Your task to perform on an android device: What's the weather today? Image 0: 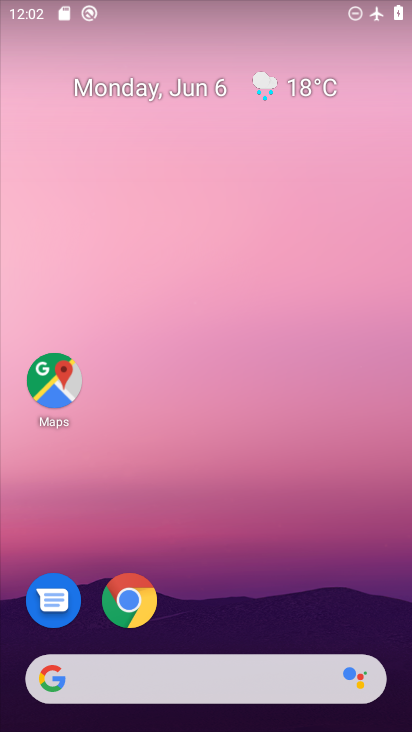
Step 0: drag from (202, 610) to (208, 305)
Your task to perform on an android device: What's the weather today? Image 1: 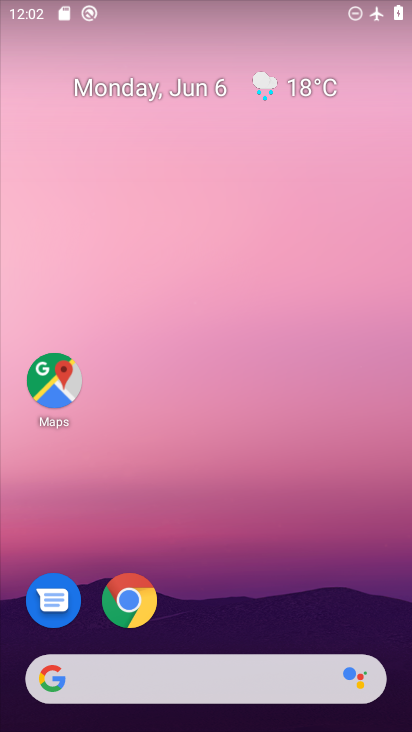
Step 1: drag from (213, 587) to (229, 164)
Your task to perform on an android device: What's the weather today? Image 2: 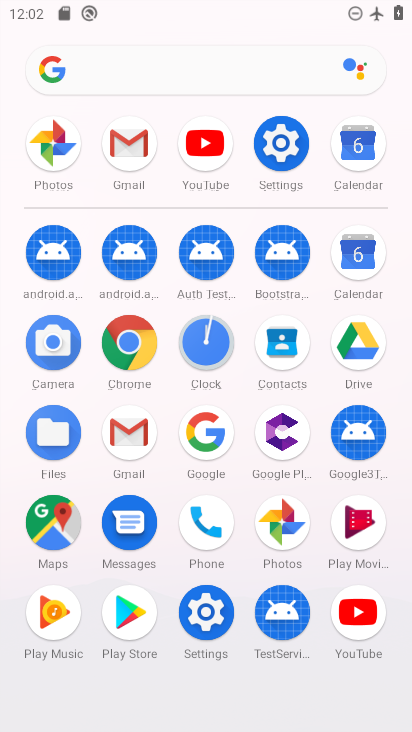
Step 2: click (201, 433)
Your task to perform on an android device: What's the weather today? Image 3: 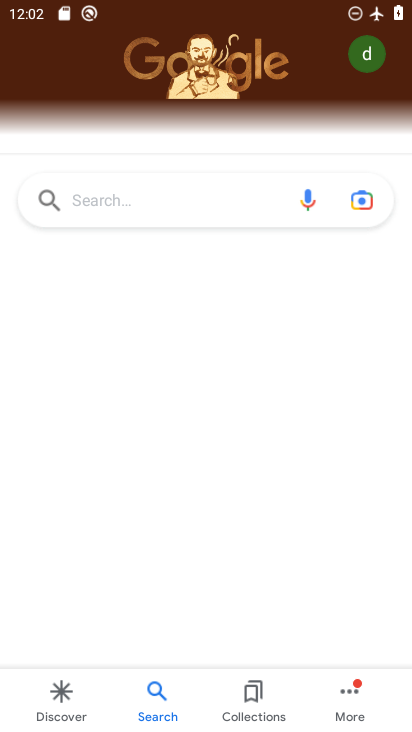
Step 3: click (206, 210)
Your task to perform on an android device: What's the weather today? Image 4: 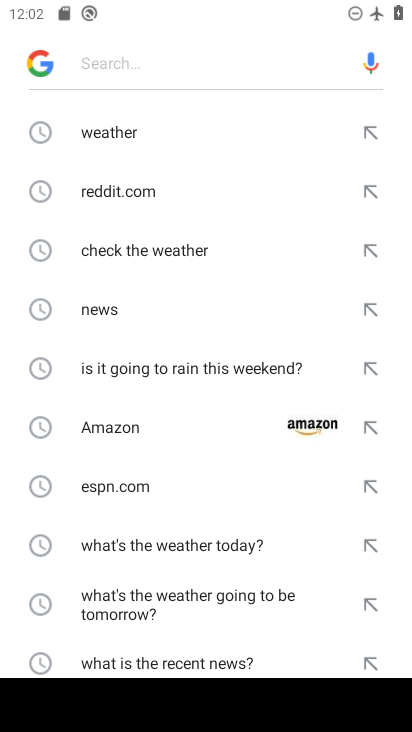
Step 4: click (121, 137)
Your task to perform on an android device: What's the weather today? Image 5: 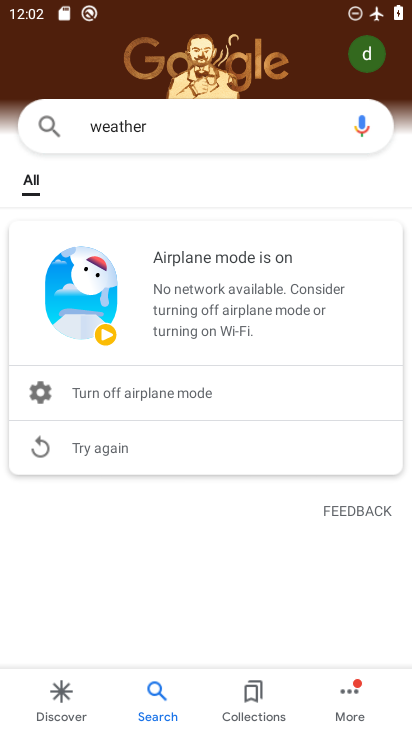
Step 5: task complete